Your task to perform on an android device: change the clock display to digital Image 0: 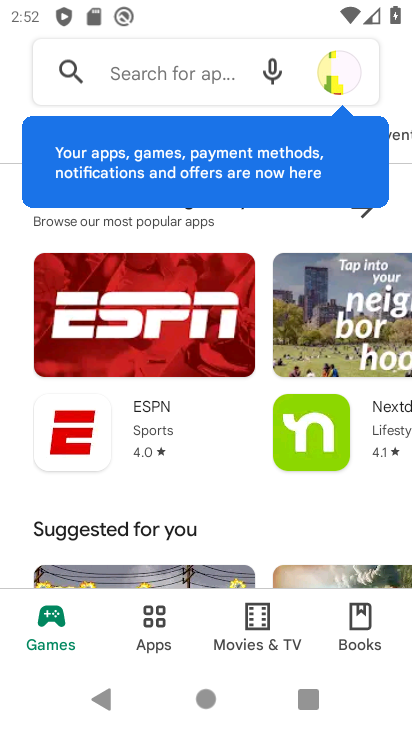
Step 0: press home button
Your task to perform on an android device: change the clock display to digital Image 1: 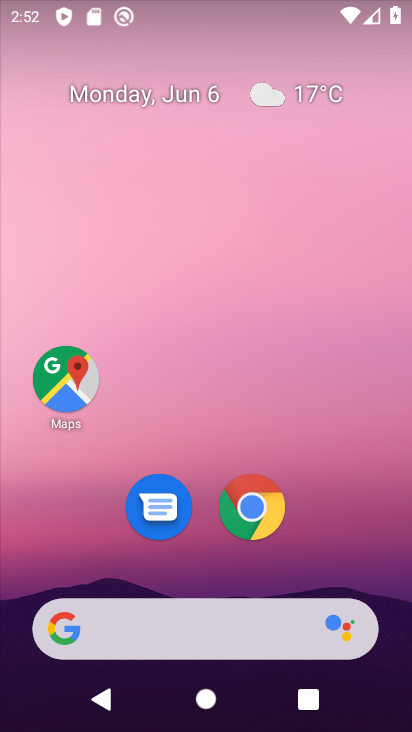
Step 1: drag from (316, 540) to (291, 162)
Your task to perform on an android device: change the clock display to digital Image 2: 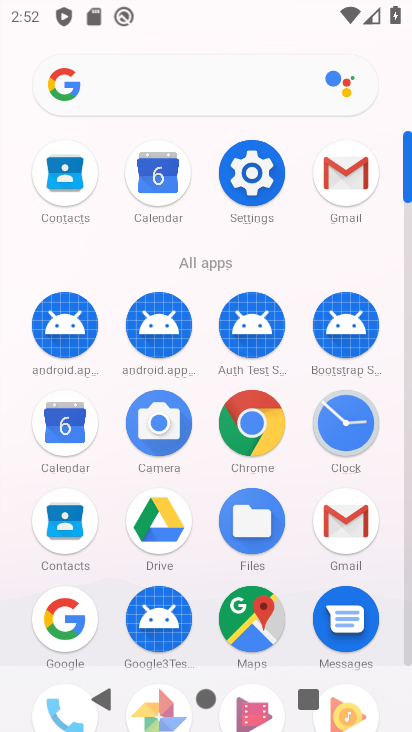
Step 2: click (368, 427)
Your task to perform on an android device: change the clock display to digital Image 3: 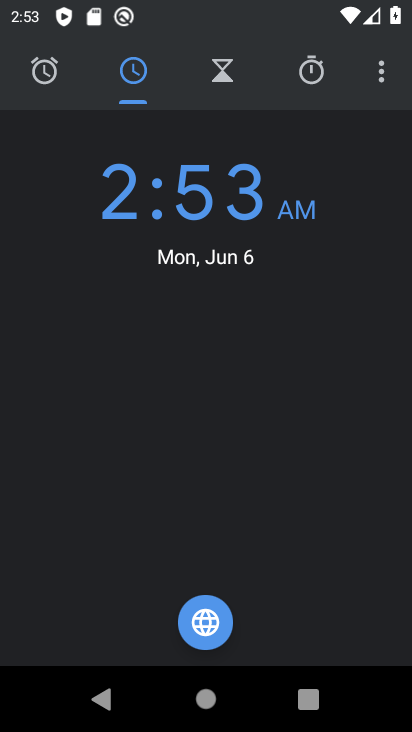
Step 3: click (385, 76)
Your task to perform on an android device: change the clock display to digital Image 4: 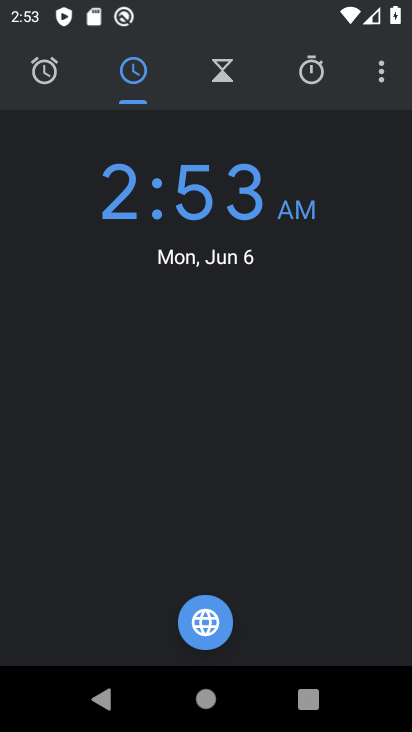
Step 4: click (383, 76)
Your task to perform on an android device: change the clock display to digital Image 5: 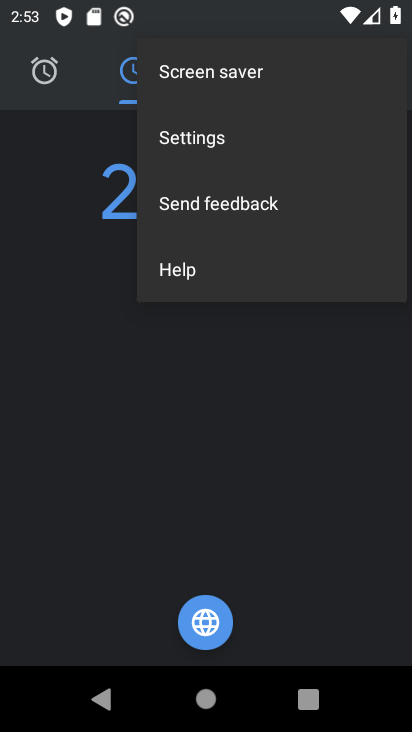
Step 5: click (209, 138)
Your task to perform on an android device: change the clock display to digital Image 6: 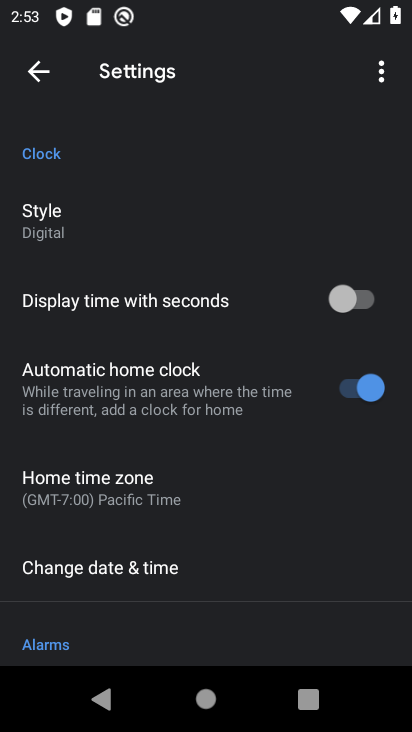
Step 6: click (52, 221)
Your task to perform on an android device: change the clock display to digital Image 7: 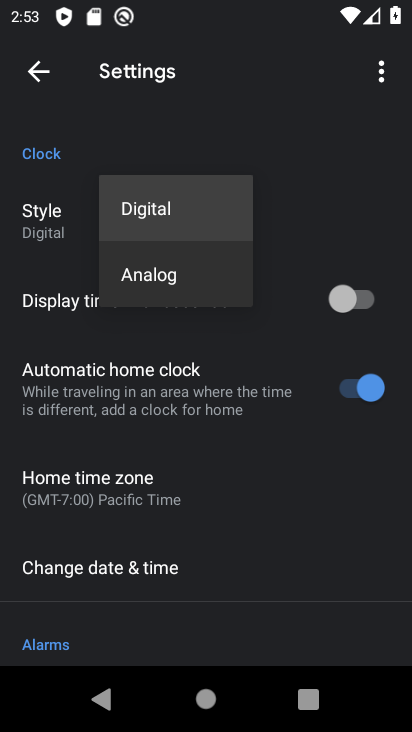
Step 7: task complete